Your task to perform on an android device: turn on translation in the chrome app Image 0: 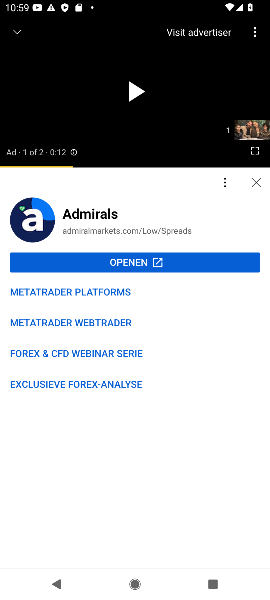
Step 0: press home button
Your task to perform on an android device: turn on translation in the chrome app Image 1: 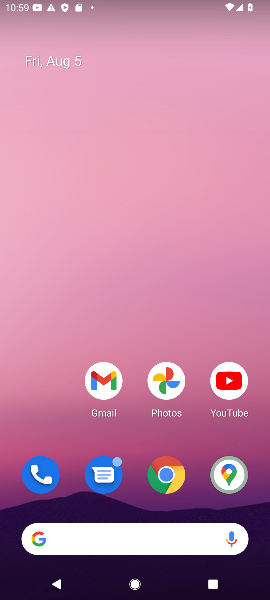
Step 1: click (165, 493)
Your task to perform on an android device: turn on translation in the chrome app Image 2: 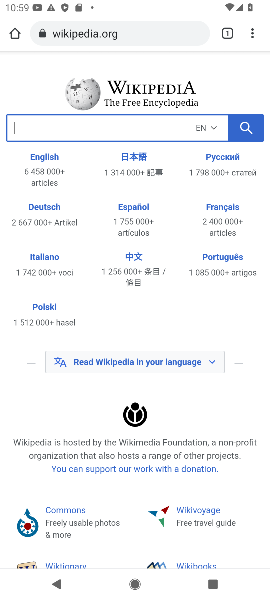
Step 2: click (251, 31)
Your task to perform on an android device: turn on translation in the chrome app Image 3: 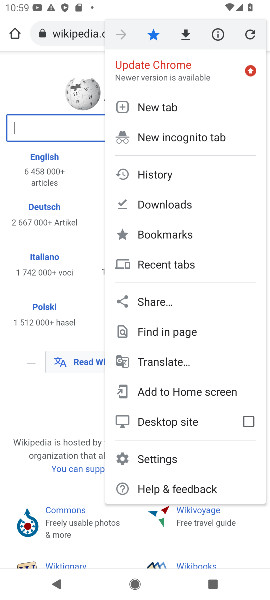
Step 3: click (164, 460)
Your task to perform on an android device: turn on translation in the chrome app Image 4: 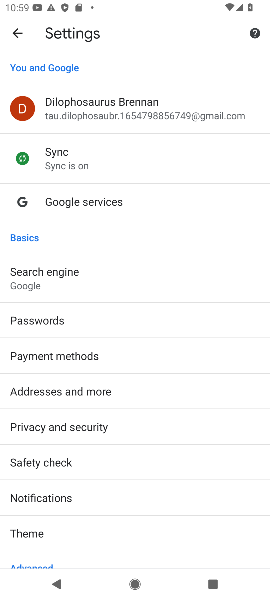
Step 4: drag from (93, 441) to (95, 335)
Your task to perform on an android device: turn on translation in the chrome app Image 5: 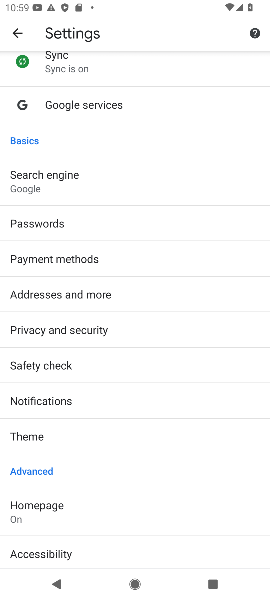
Step 5: drag from (56, 486) to (64, 299)
Your task to perform on an android device: turn on translation in the chrome app Image 6: 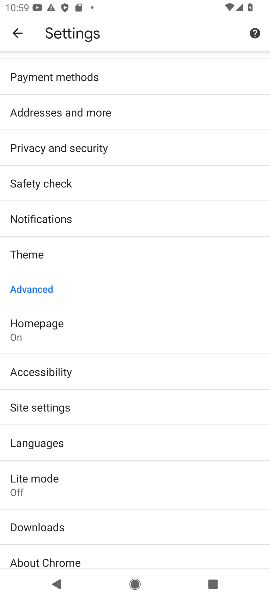
Step 6: click (54, 444)
Your task to perform on an android device: turn on translation in the chrome app Image 7: 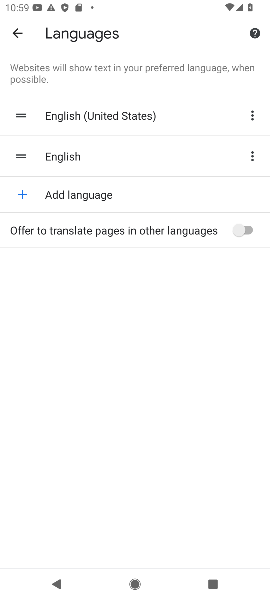
Step 7: click (250, 237)
Your task to perform on an android device: turn on translation in the chrome app Image 8: 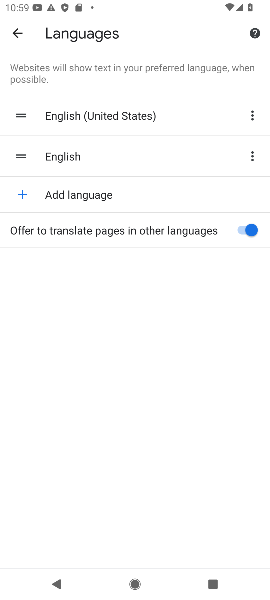
Step 8: task complete